Your task to perform on an android device: What's the weather going to be tomorrow? Image 0: 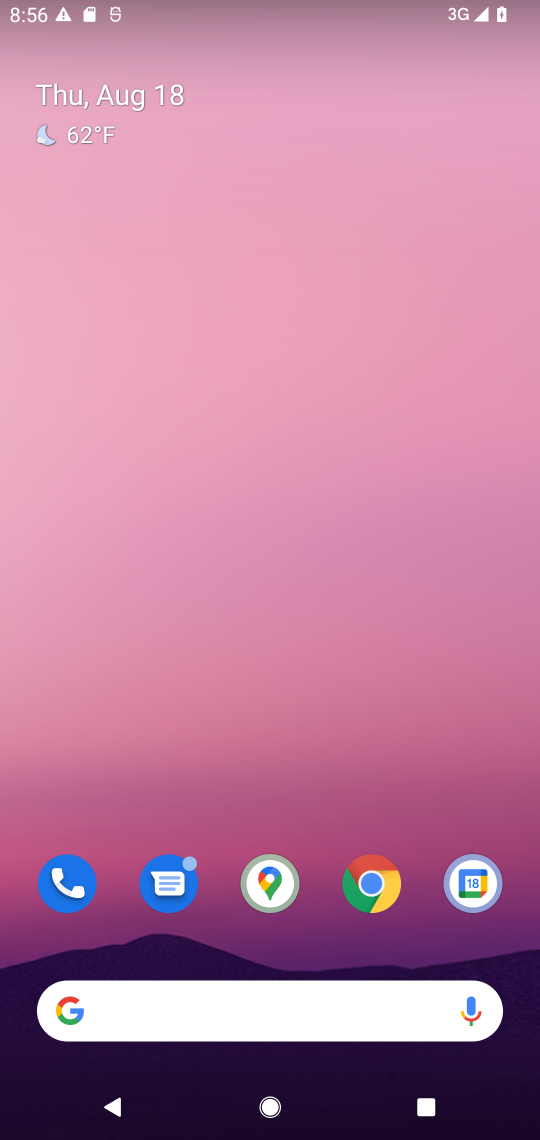
Step 0: click (114, 1000)
Your task to perform on an android device: What's the weather going to be tomorrow? Image 1: 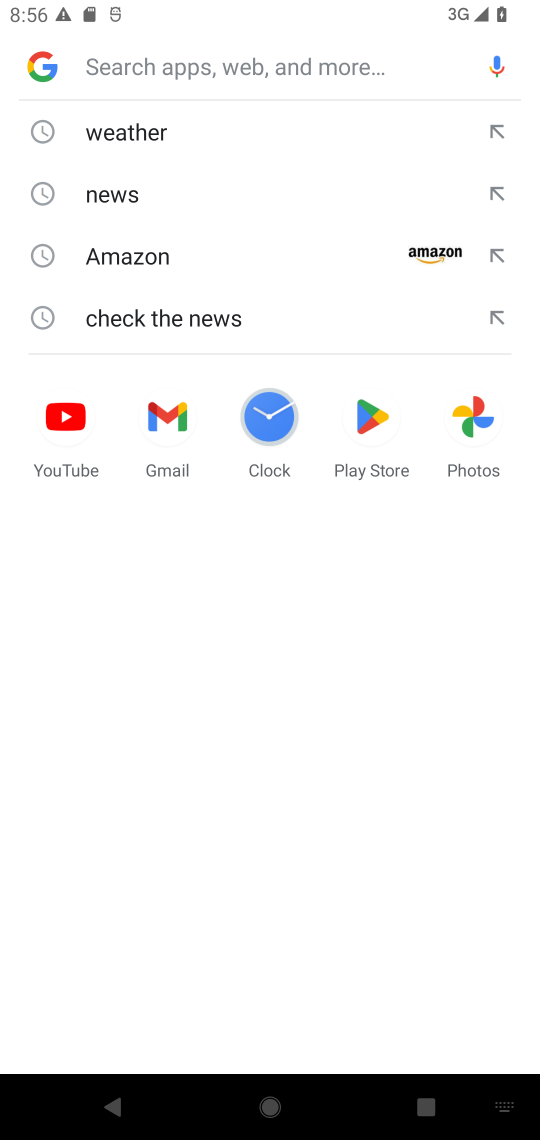
Step 1: type "What's the weather going to be tomorrow?"
Your task to perform on an android device: What's the weather going to be tomorrow? Image 2: 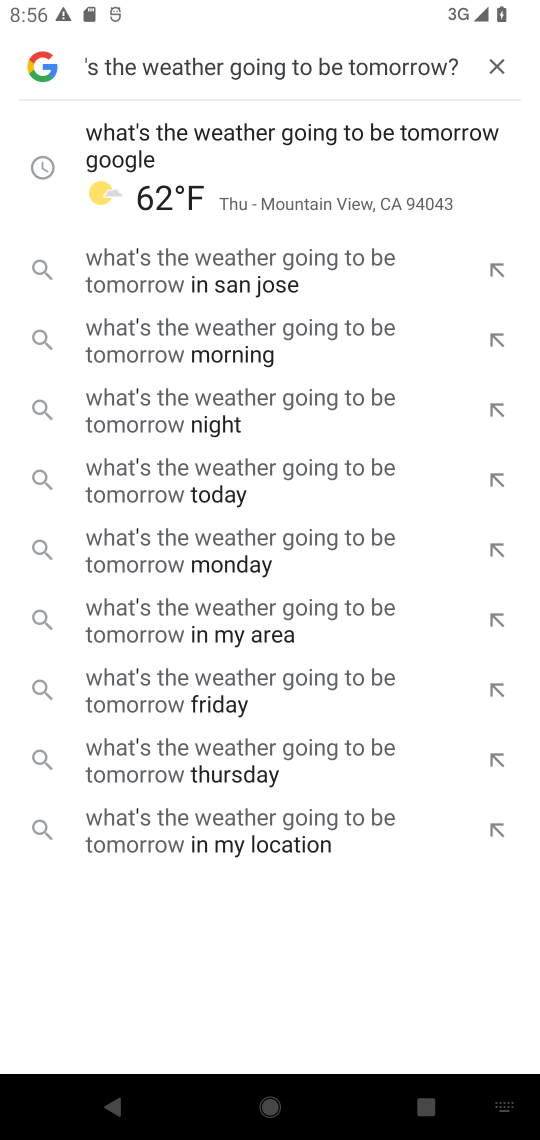
Step 2: type ""
Your task to perform on an android device: What's the weather going to be tomorrow? Image 3: 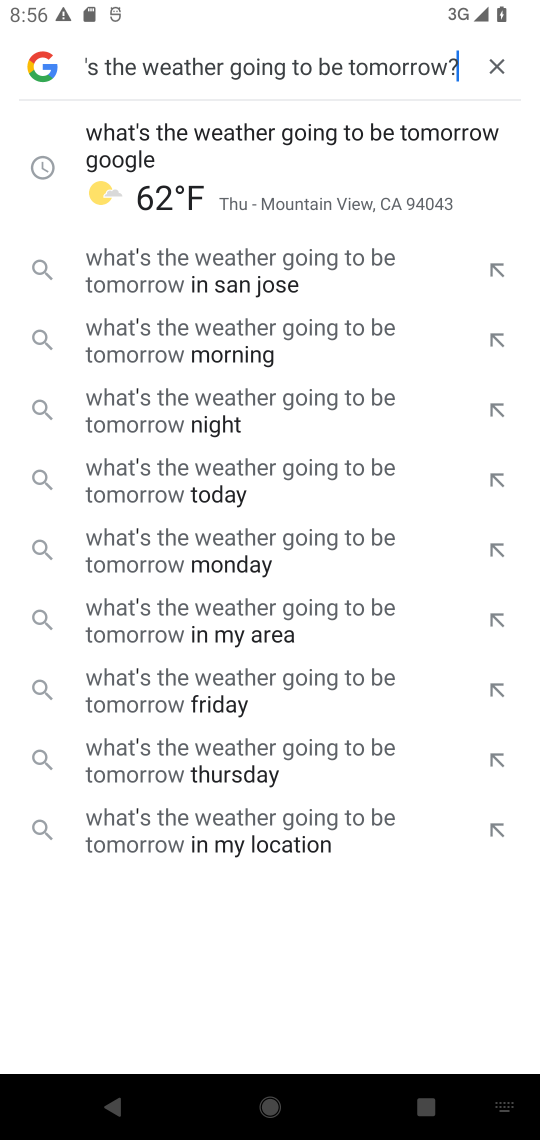
Step 3: type ""
Your task to perform on an android device: What's the weather going to be tomorrow? Image 4: 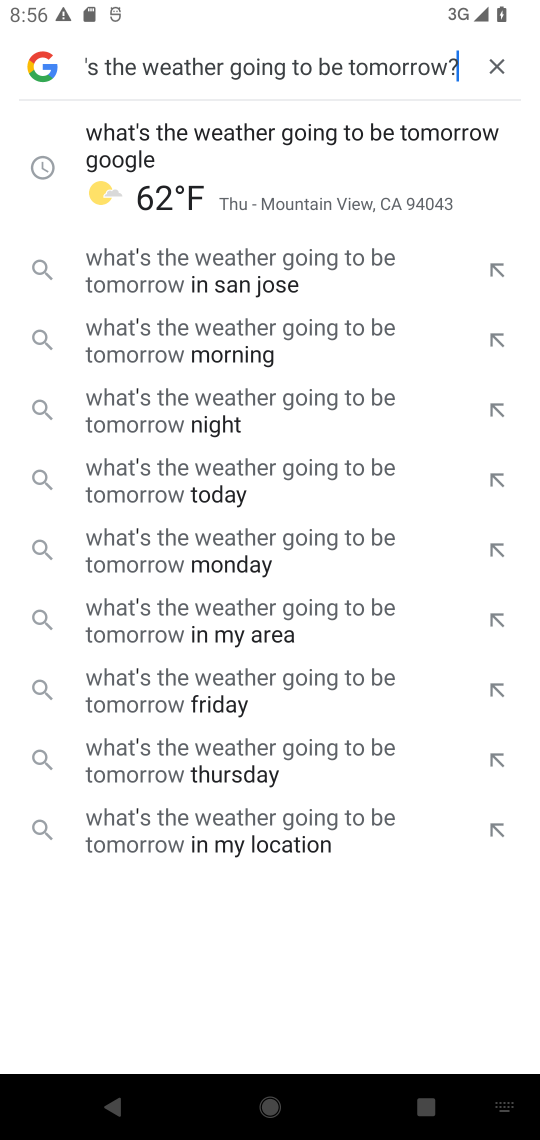
Step 4: task complete